Your task to perform on an android device: change text size in settings app Image 0: 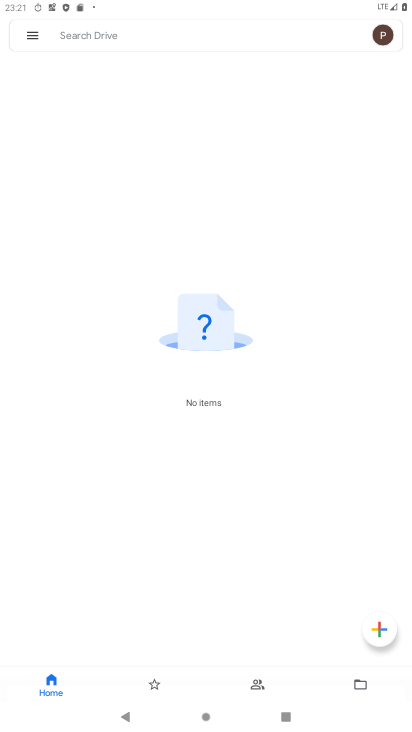
Step 0: press home button
Your task to perform on an android device: change text size in settings app Image 1: 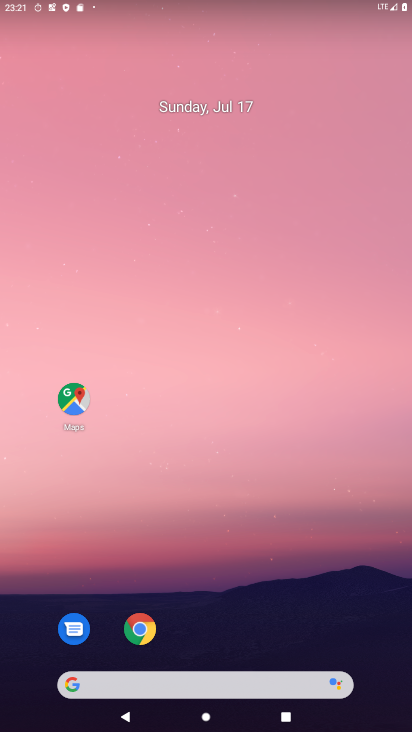
Step 1: drag from (227, 686) to (227, 55)
Your task to perform on an android device: change text size in settings app Image 2: 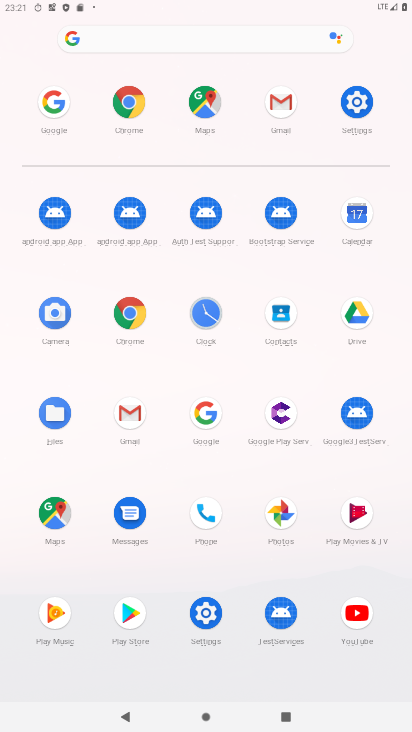
Step 2: click (354, 110)
Your task to perform on an android device: change text size in settings app Image 3: 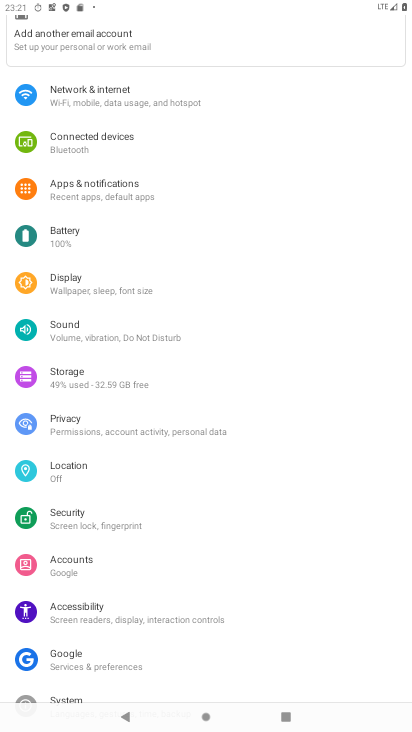
Step 3: drag from (74, 667) to (74, 290)
Your task to perform on an android device: change text size in settings app Image 4: 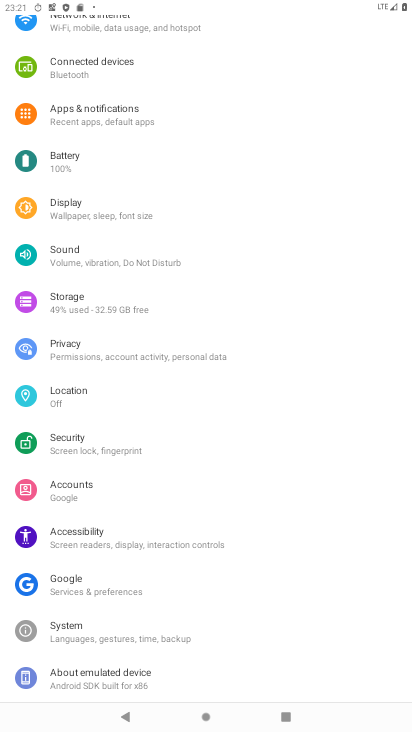
Step 4: click (104, 212)
Your task to perform on an android device: change text size in settings app Image 5: 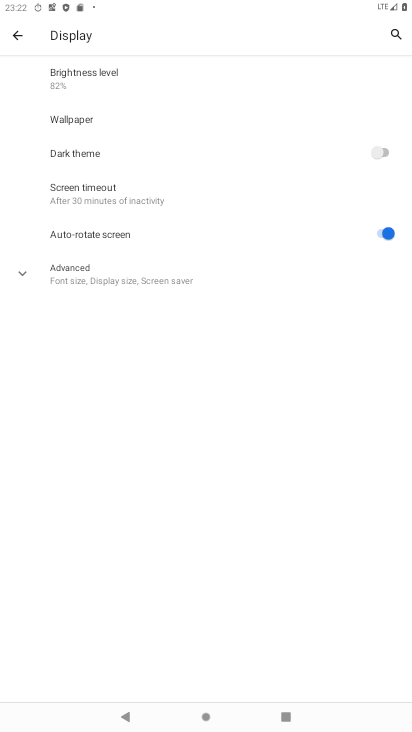
Step 5: click (80, 269)
Your task to perform on an android device: change text size in settings app Image 6: 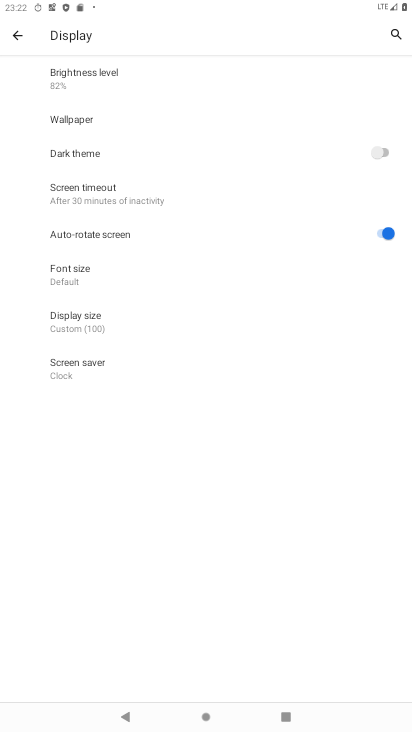
Step 6: click (80, 270)
Your task to perform on an android device: change text size in settings app Image 7: 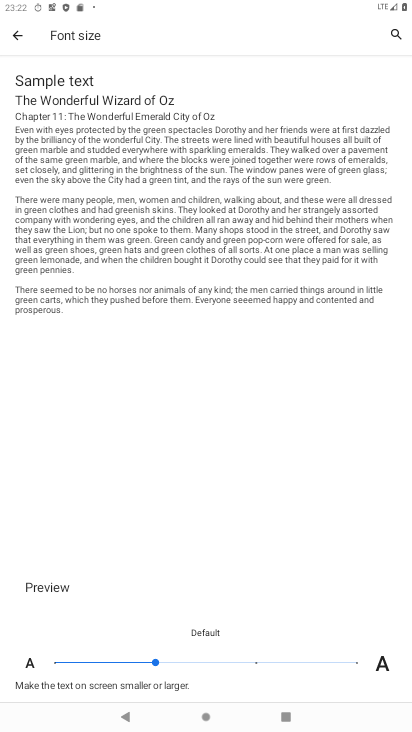
Step 7: click (358, 664)
Your task to perform on an android device: change text size in settings app Image 8: 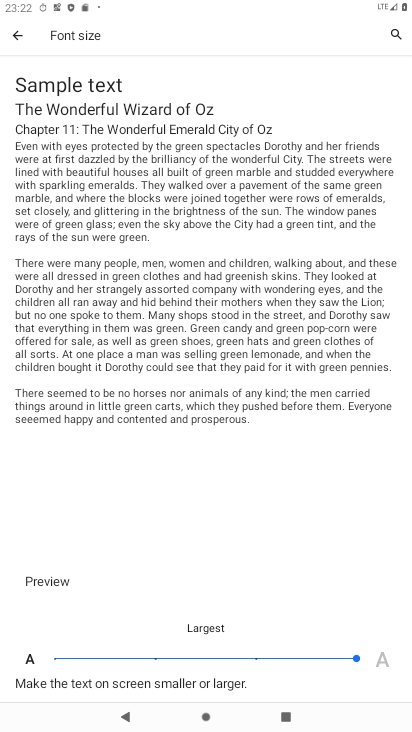
Step 8: task complete